Your task to perform on an android device: toggle translation in the chrome app Image 0: 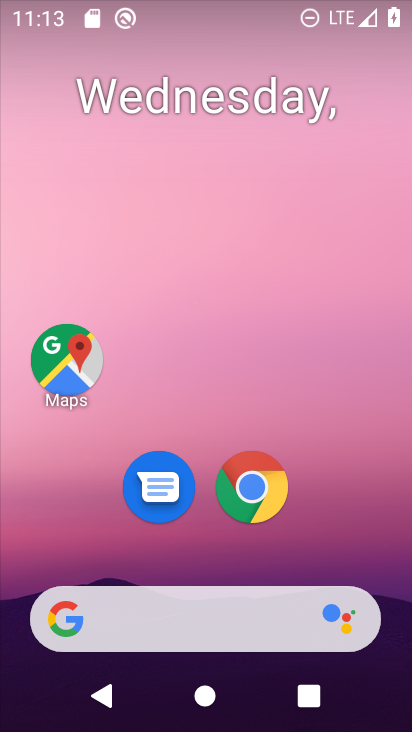
Step 0: click (252, 486)
Your task to perform on an android device: toggle translation in the chrome app Image 1: 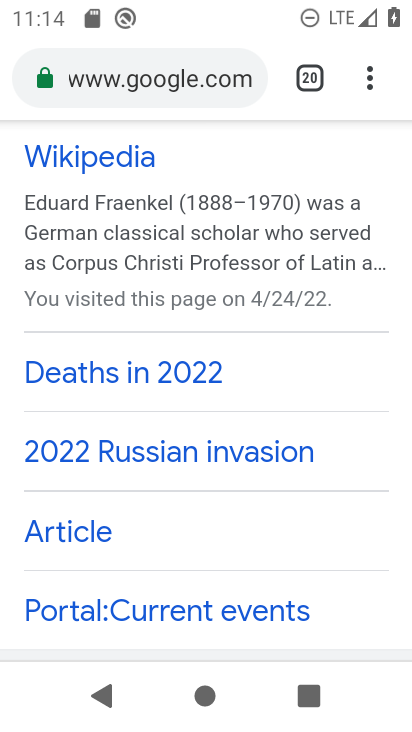
Step 1: click (371, 66)
Your task to perform on an android device: toggle translation in the chrome app Image 2: 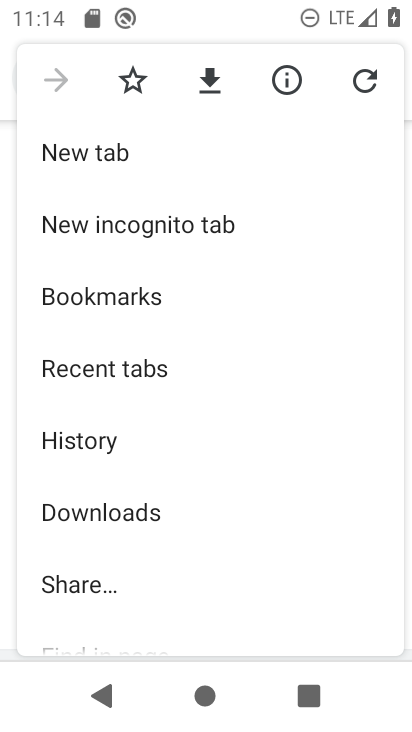
Step 2: drag from (266, 450) to (263, 204)
Your task to perform on an android device: toggle translation in the chrome app Image 3: 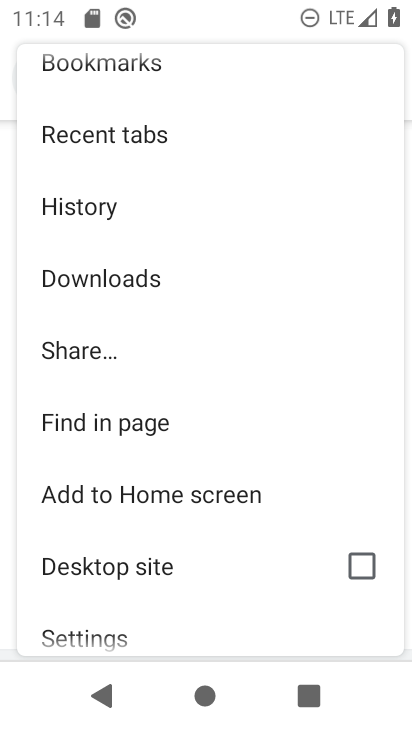
Step 3: drag from (207, 574) to (195, 238)
Your task to perform on an android device: toggle translation in the chrome app Image 4: 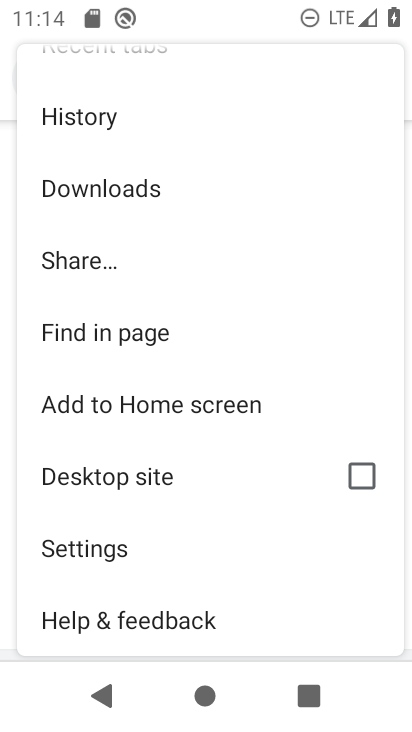
Step 4: click (98, 544)
Your task to perform on an android device: toggle translation in the chrome app Image 5: 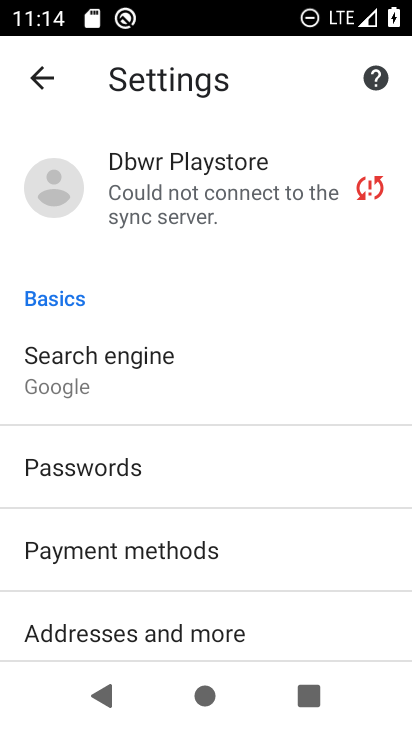
Step 5: drag from (272, 583) to (280, 159)
Your task to perform on an android device: toggle translation in the chrome app Image 6: 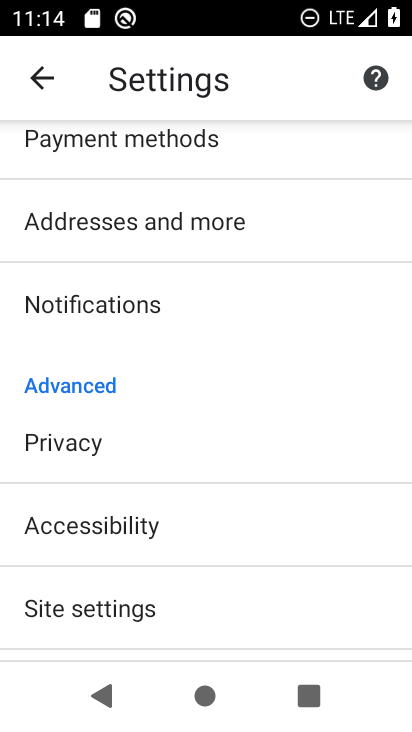
Step 6: drag from (191, 491) to (191, 147)
Your task to perform on an android device: toggle translation in the chrome app Image 7: 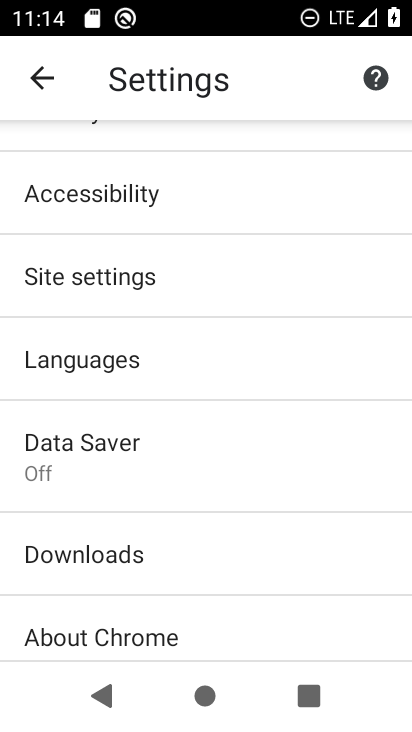
Step 7: click (94, 358)
Your task to perform on an android device: toggle translation in the chrome app Image 8: 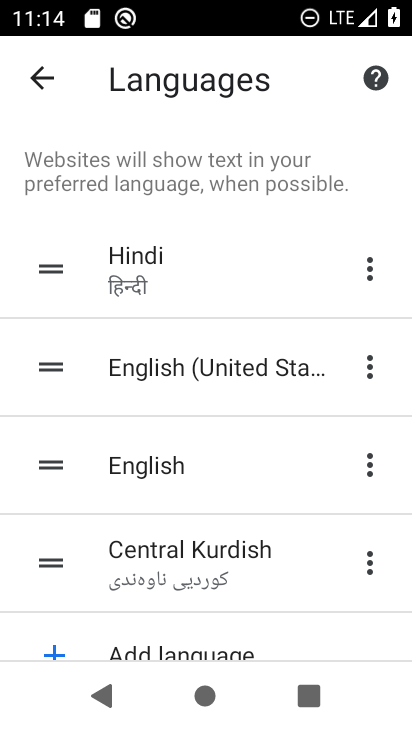
Step 8: drag from (284, 456) to (294, 143)
Your task to perform on an android device: toggle translation in the chrome app Image 9: 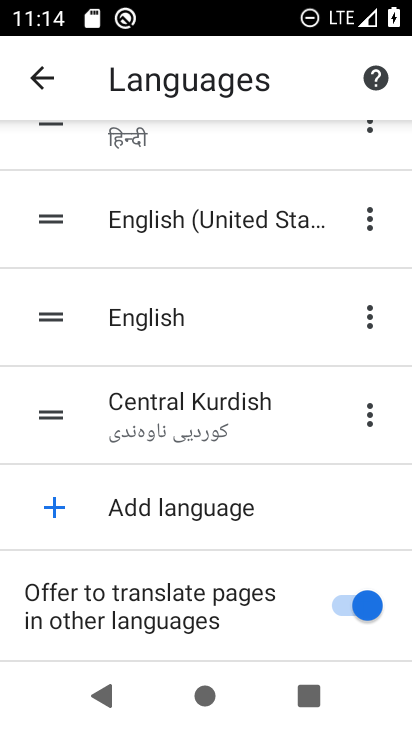
Step 9: click (356, 601)
Your task to perform on an android device: toggle translation in the chrome app Image 10: 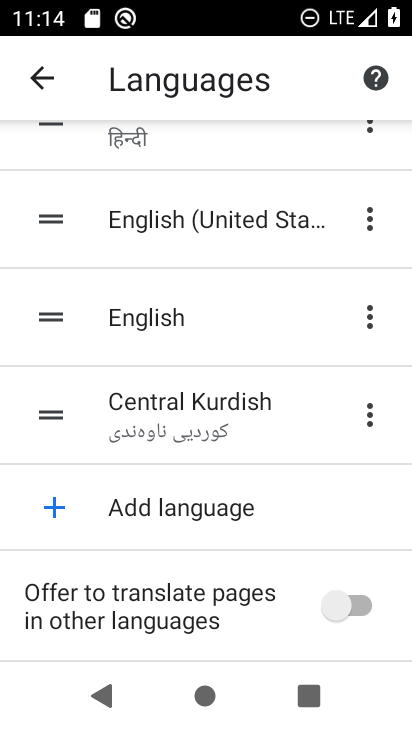
Step 10: task complete